Your task to perform on an android device: Open display settings Image 0: 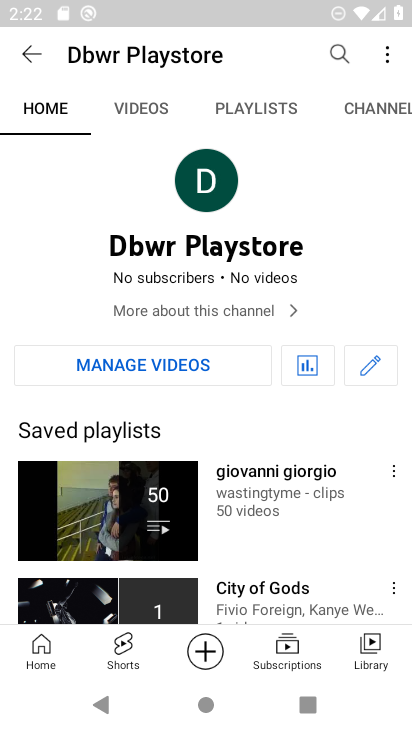
Step 0: press home button
Your task to perform on an android device: Open display settings Image 1: 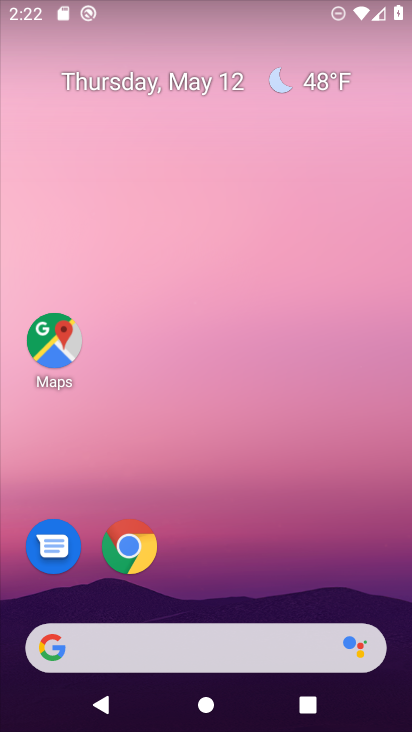
Step 1: drag from (270, 696) to (218, 290)
Your task to perform on an android device: Open display settings Image 2: 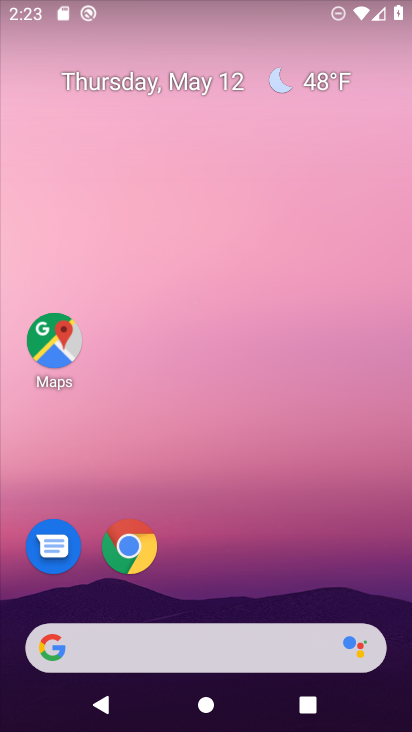
Step 2: drag from (238, 673) to (277, 306)
Your task to perform on an android device: Open display settings Image 3: 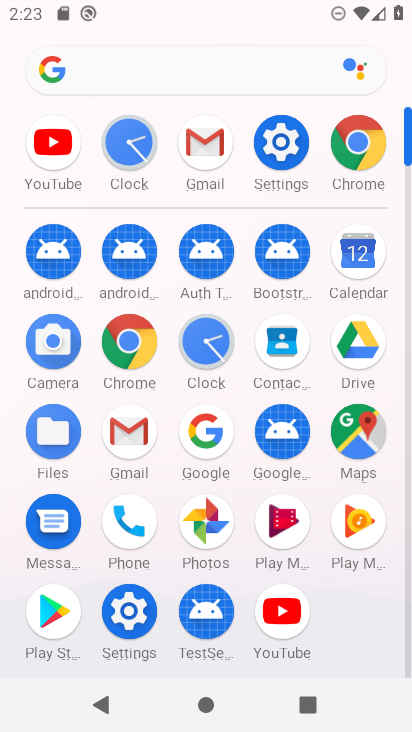
Step 3: click (129, 608)
Your task to perform on an android device: Open display settings Image 4: 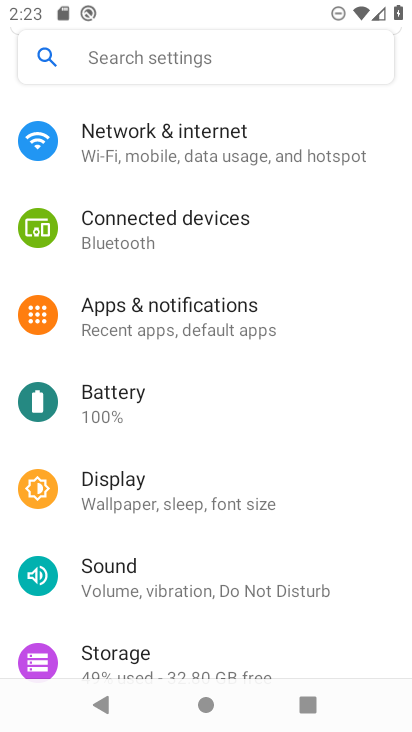
Step 4: click (152, 513)
Your task to perform on an android device: Open display settings Image 5: 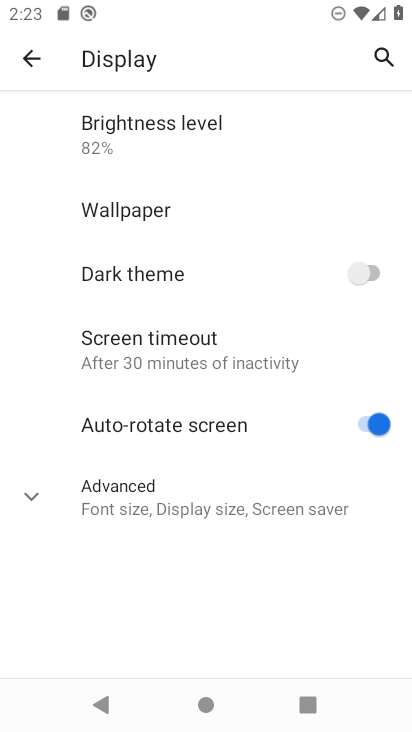
Step 5: task complete